Your task to perform on an android device: Is it going to rain this weekend? Image 0: 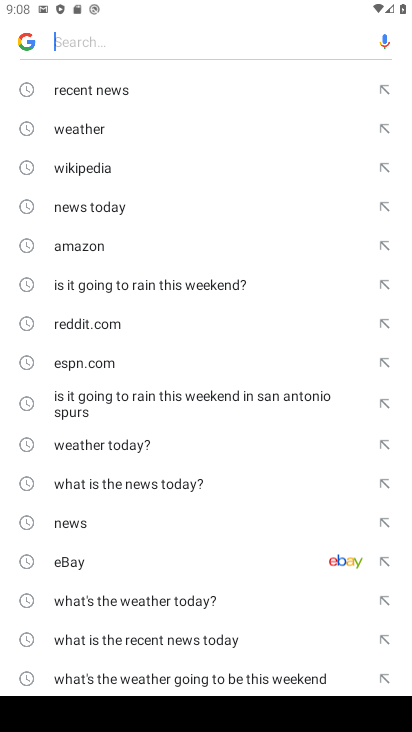
Step 0: click (62, 134)
Your task to perform on an android device: Is it going to rain this weekend? Image 1: 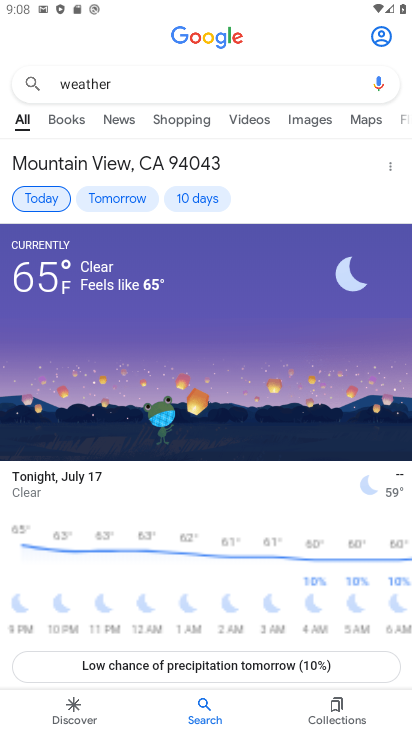
Step 1: click (202, 196)
Your task to perform on an android device: Is it going to rain this weekend? Image 2: 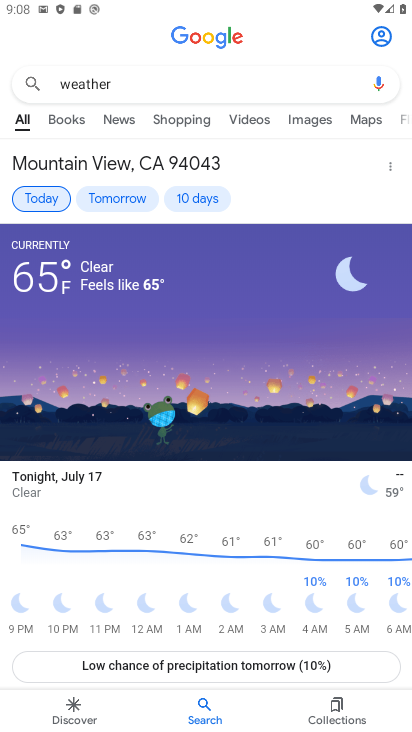
Step 2: click (200, 193)
Your task to perform on an android device: Is it going to rain this weekend? Image 3: 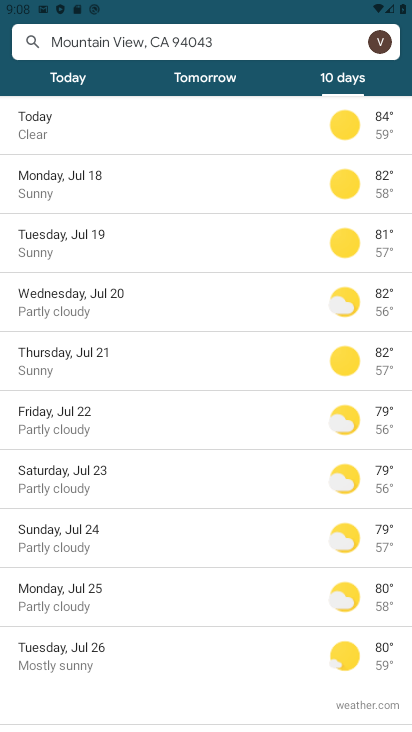
Step 3: task complete